Your task to perform on an android device: Open Maps and search for coffee Image 0: 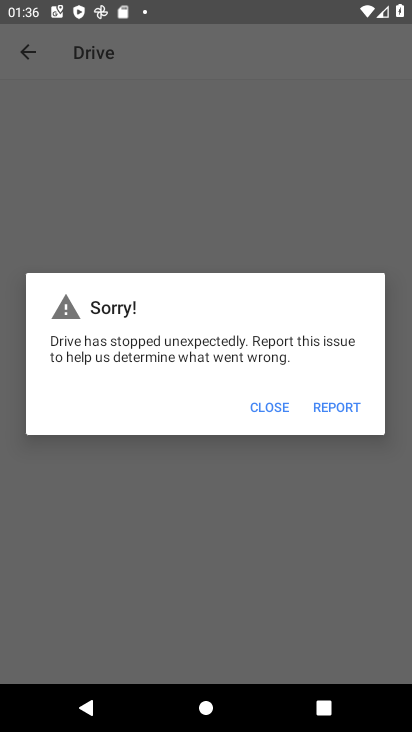
Step 0: press home button
Your task to perform on an android device: Open Maps and search for coffee Image 1: 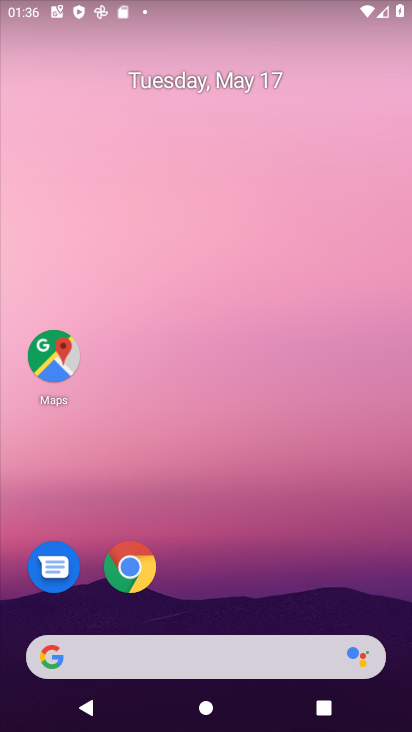
Step 1: click (51, 358)
Your task to perform on an android device: Open Maps and search for coffee Image 2: 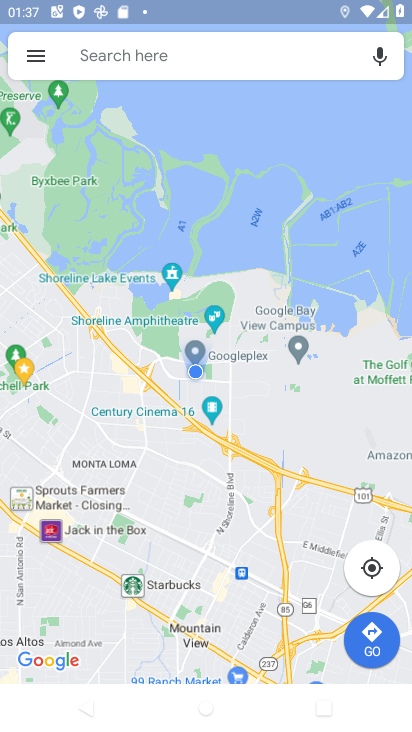
Step 2: click (138, 52)
Your task to perform on an android device: Open Maps and search for coffee Image 3: 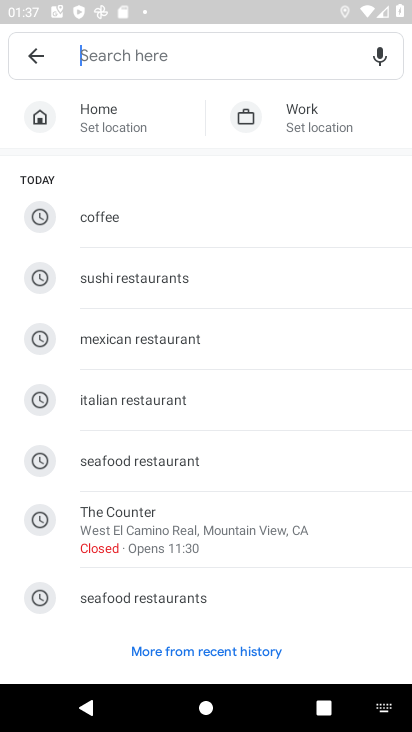
Step 3: type "coffee"
Your task to perform on an android device: Open Maps and search for coffee Image 4: 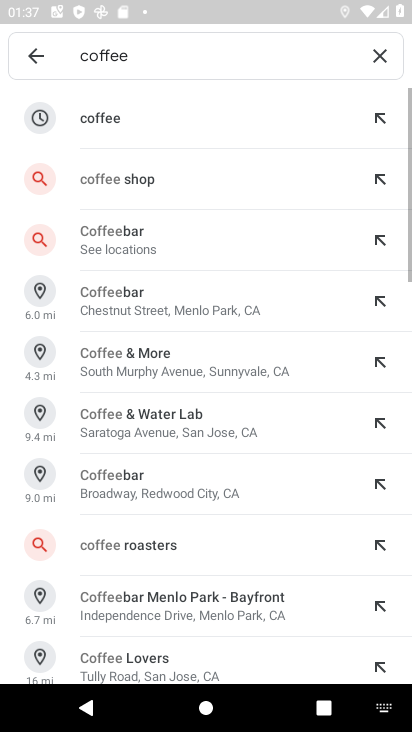
Step 4: click (87, 110)
Your task to perform on an android device: Open Maps and search for coffee Image 5: 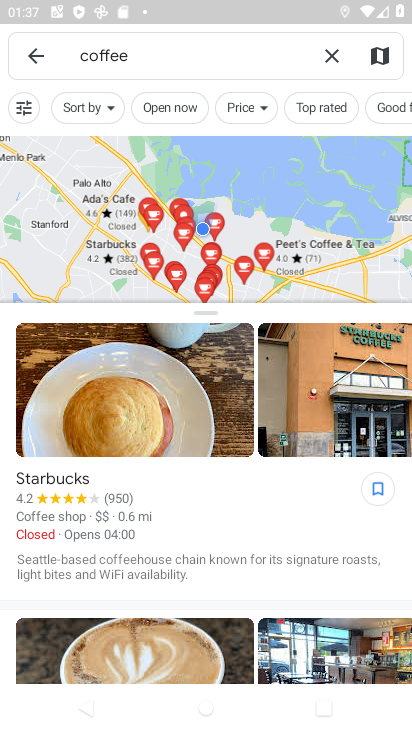
Step 5: task complete